Your task to perform on an android device: find snoozed emails in the gmail app Image 0: 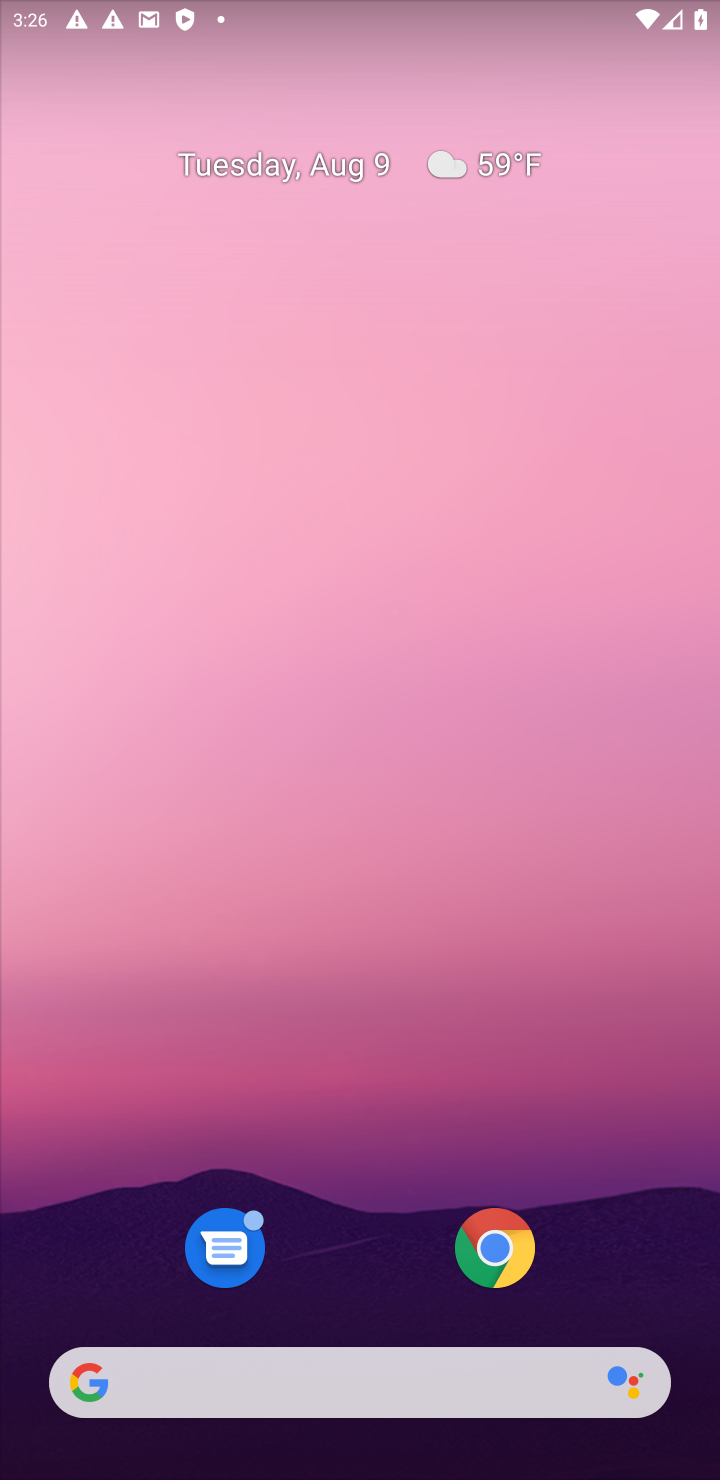
Step 0: drag from (441, 699) to (302, 157)
Your task to perform on an android device: find snoozed emails in the gmail app Image 1: 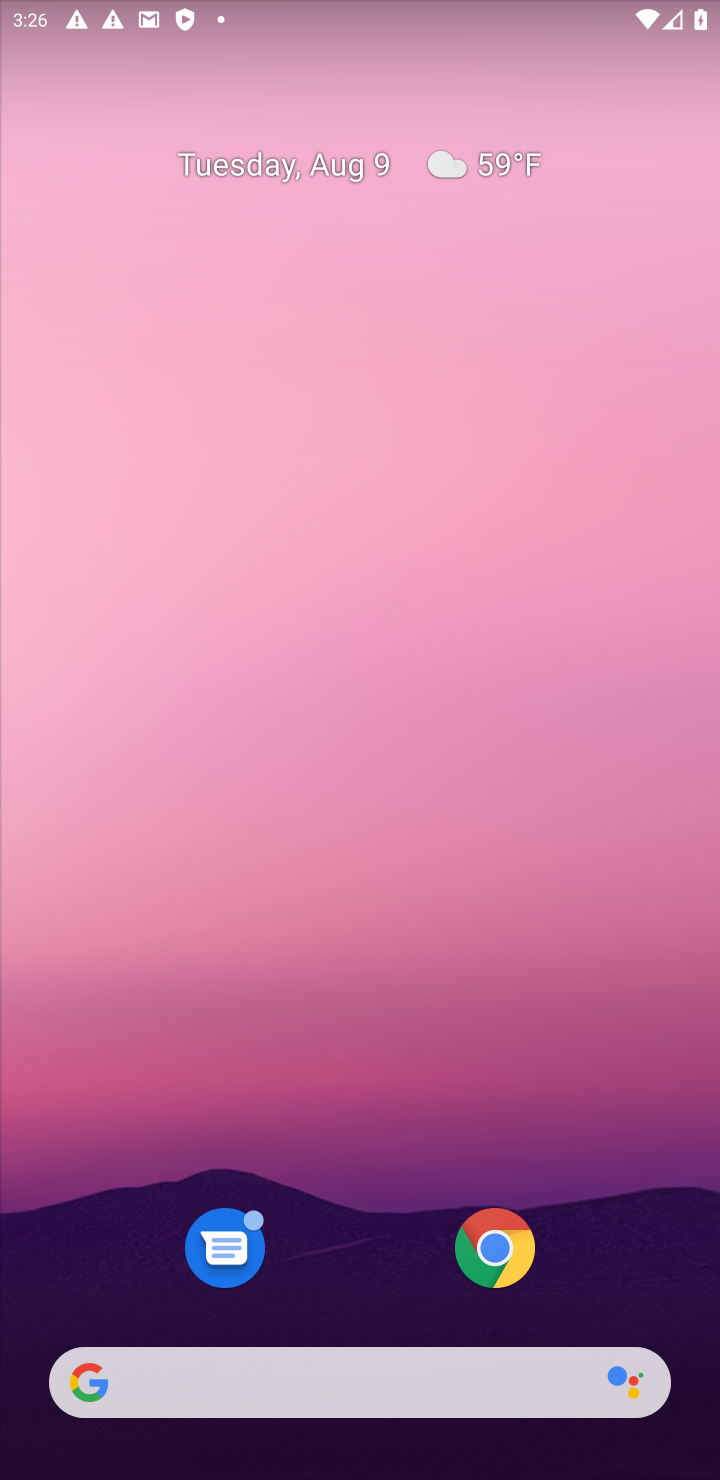
Step 1: drag from (335, 1169) to (199, 411)
Your task to perform on an android device: find snoozed emails in the gmail app Image 2: 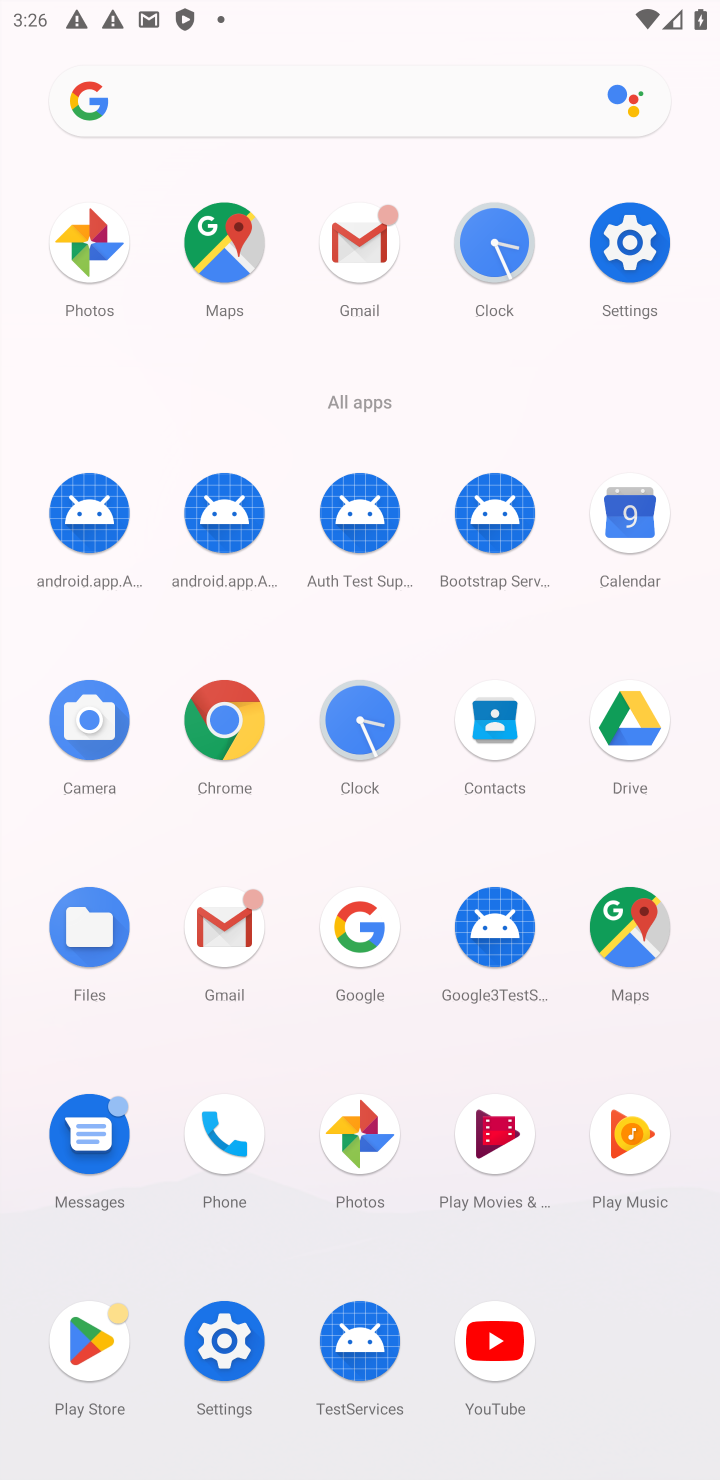
Step 2: click (209, 910)
Your task to perform on an android device: find snoozed emails in the gmail app Image 3: 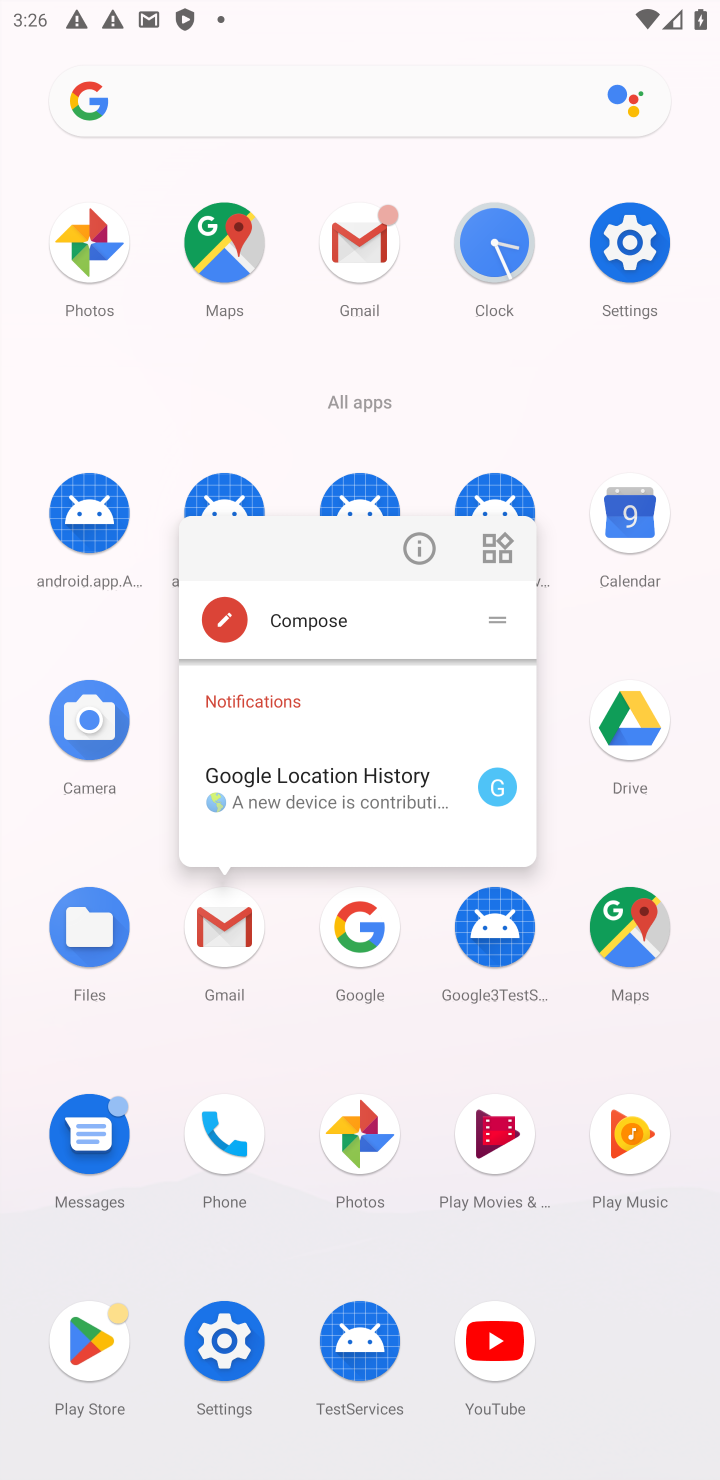
Step 3: click (223, 915)
Your task to perform on an android device: find snoozed emails in the gmail app Image 4: 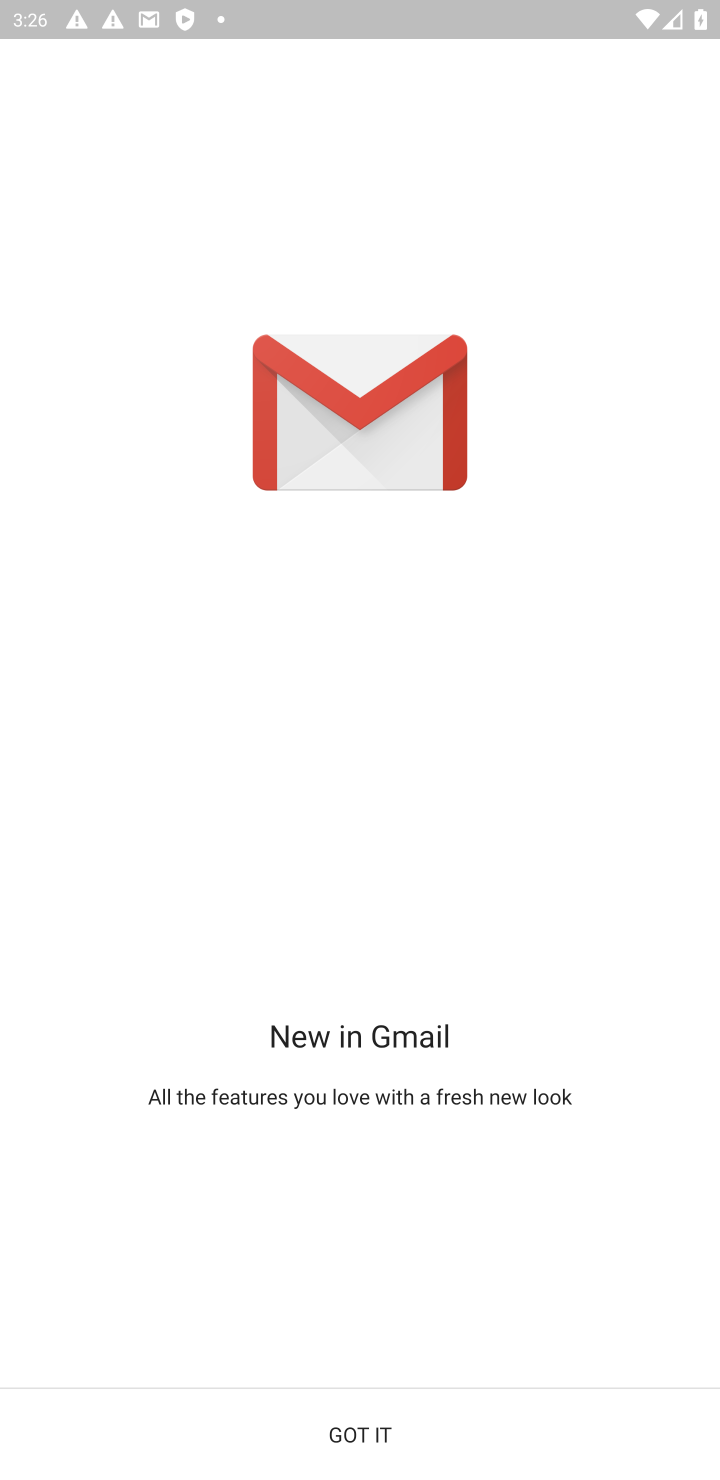
Step 4: click (316, 1415)
Your task to perform on an android device: find snoozed emails in the gmail app Image 5: 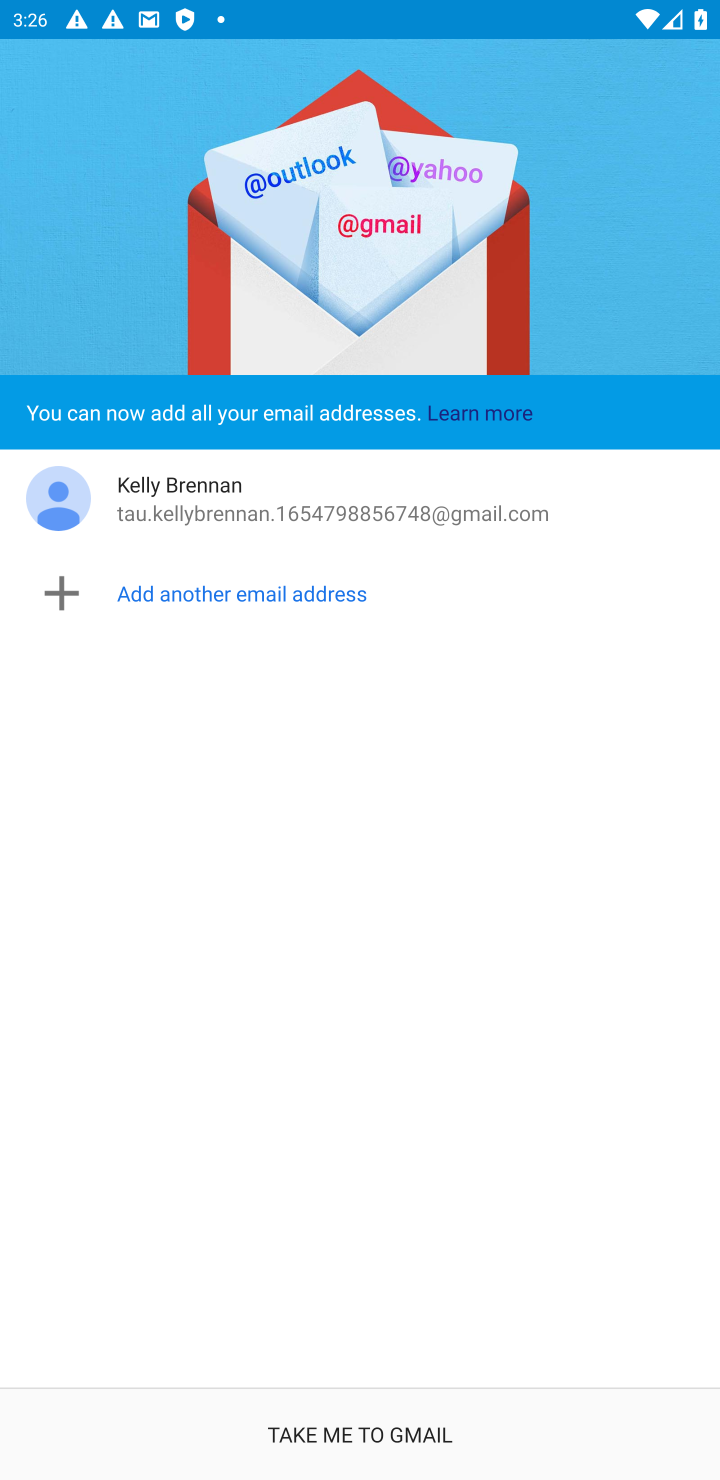
Step 5: click (289, 1409)
Your task to perform on an android device: find snoozed emails in the gmail app Image 6: 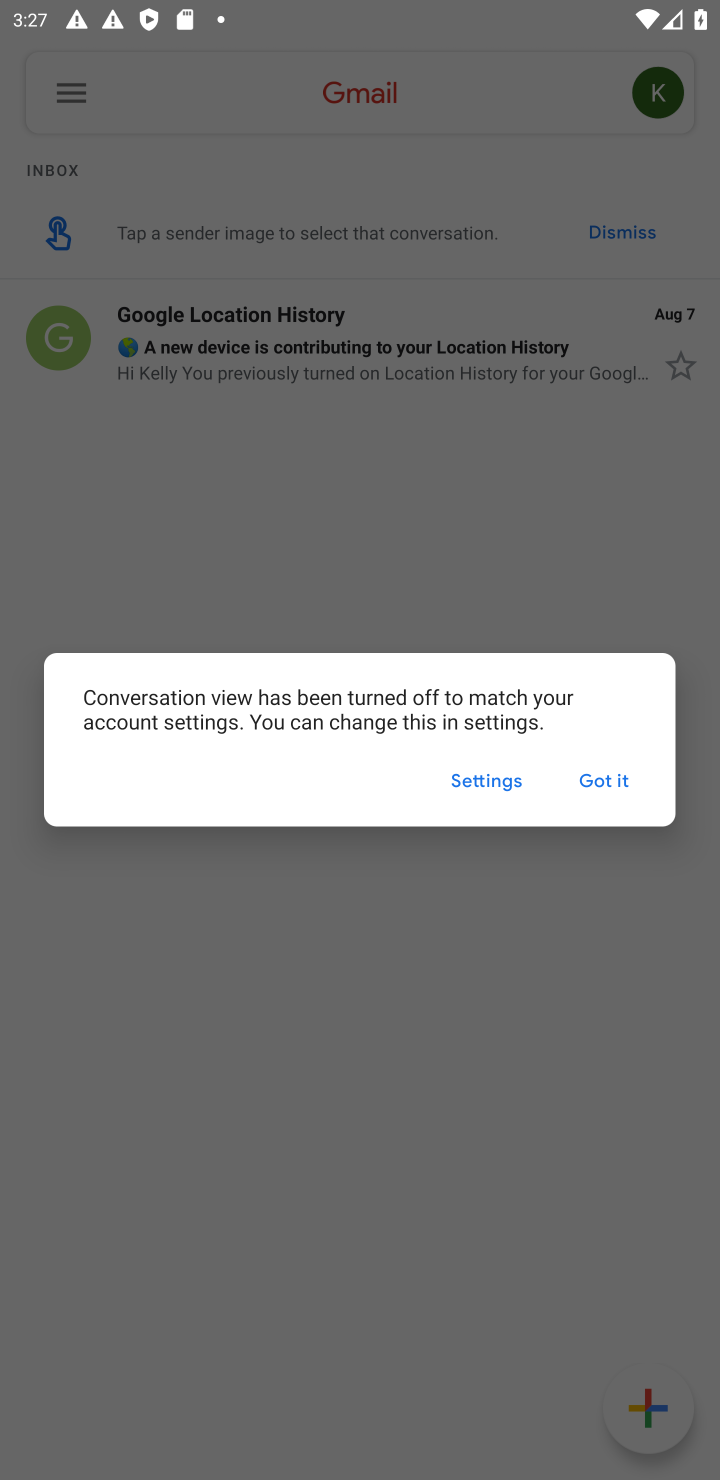
Step 6: click (605, 777)
Your task to perform on an android device: find snoozed emails in the gmail app Image 7: 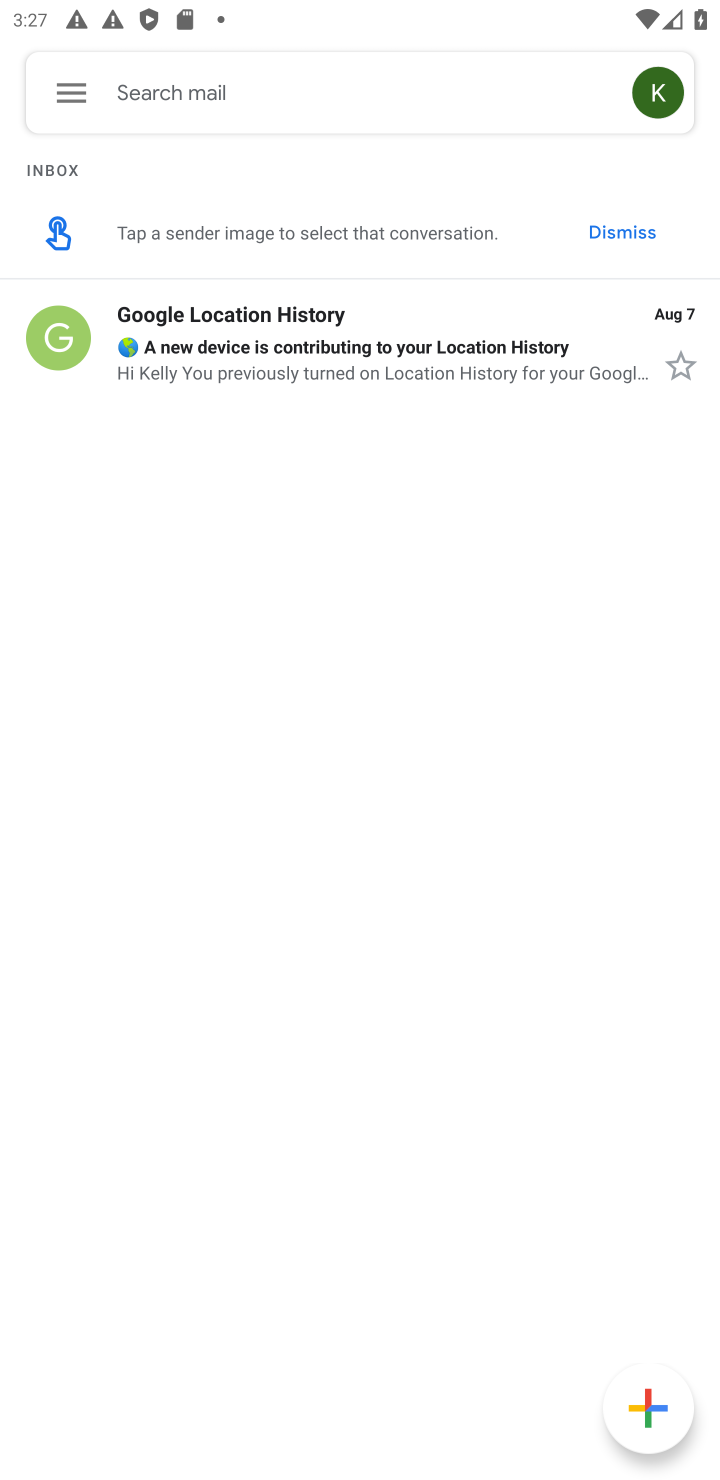
Step 7: click (76, 108)
Your task to perform on an android device: find snoozed emails in the gmail app Image 8: 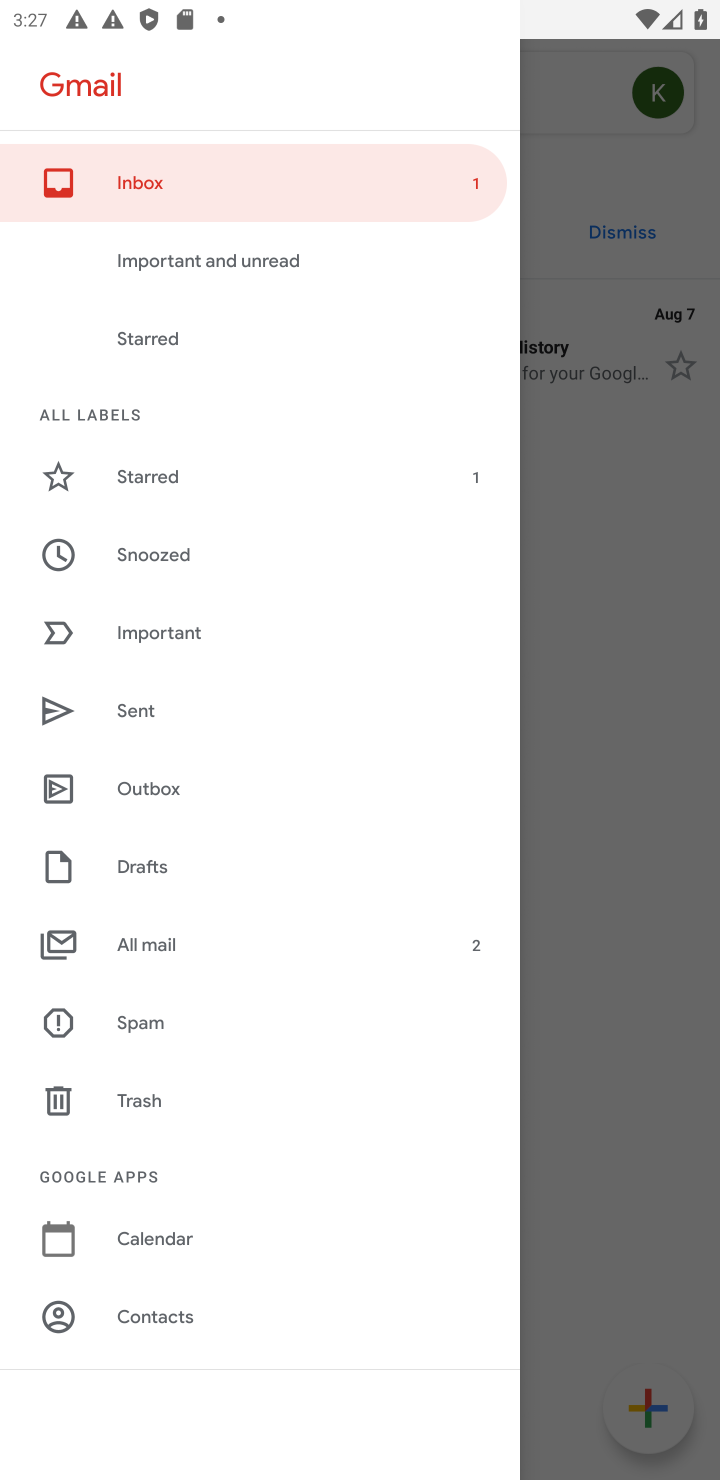
Step 8: click (141, 570)
Your task to perform on an android device: find snoozed emails in the gmail app Image 9: 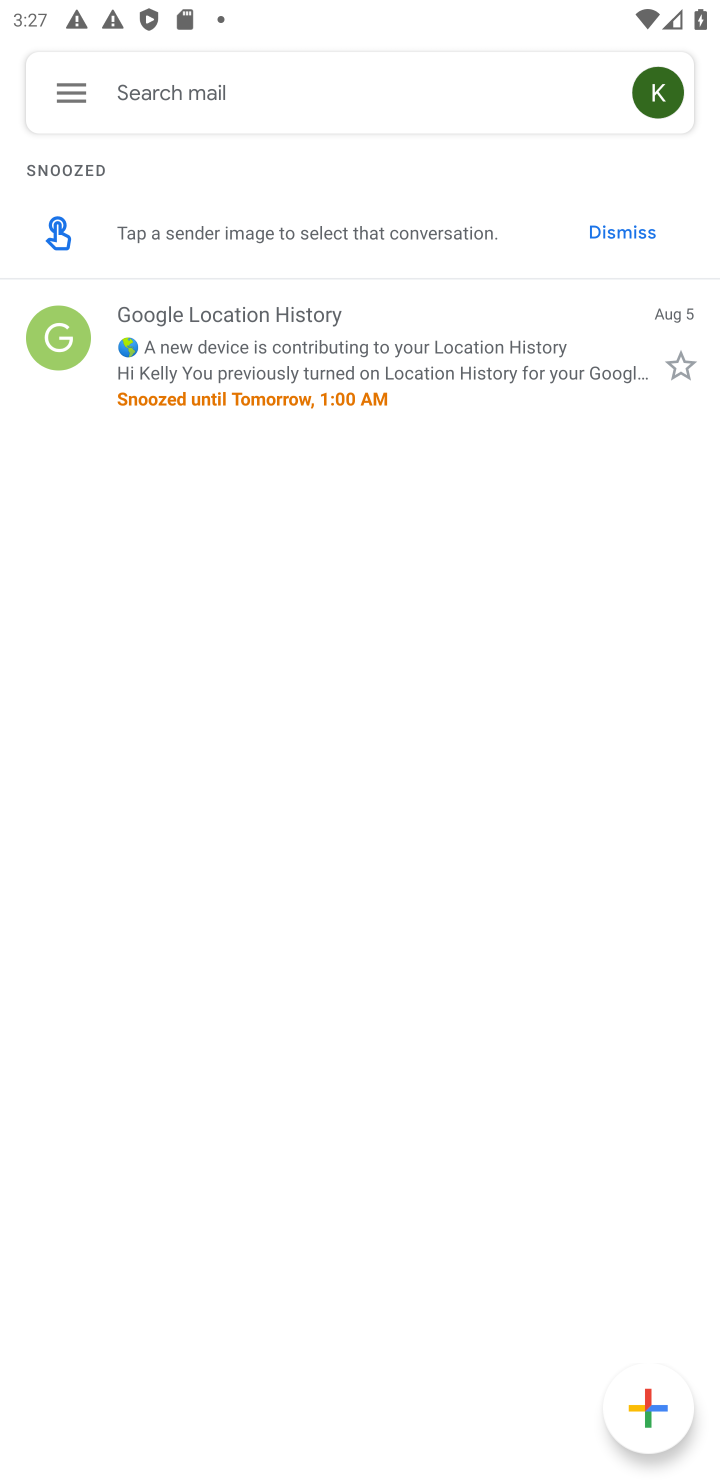
Step 9: task complete